Your task to perform on an android device: Open maps Image 0: 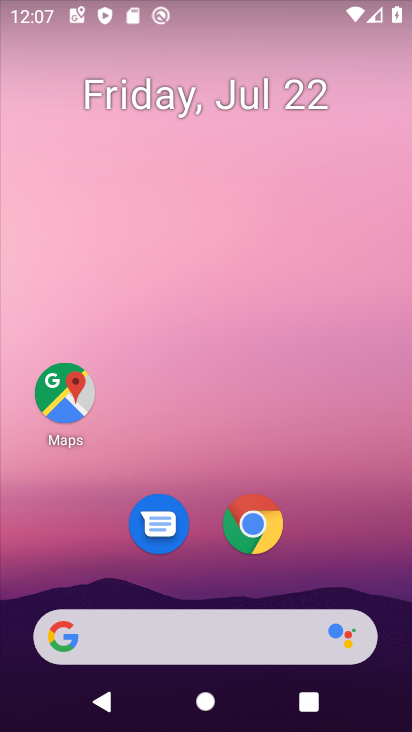
Step 0: click (51, 392)
Your task to perform on an android device: Open maps Image 1: 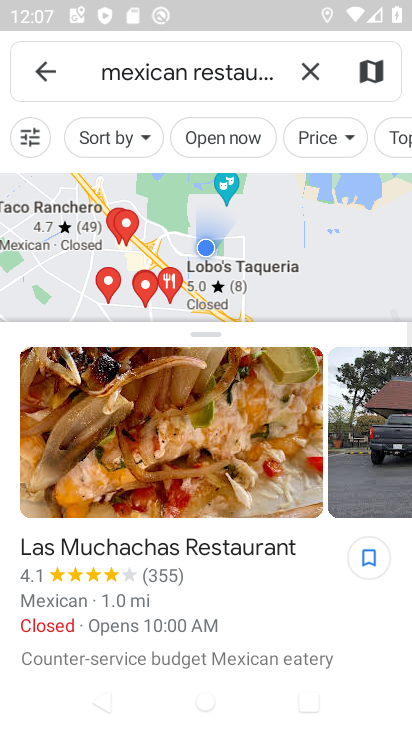
Step 1: click (308, 64)
Your task to perform on an android device: Open maps Image 2: 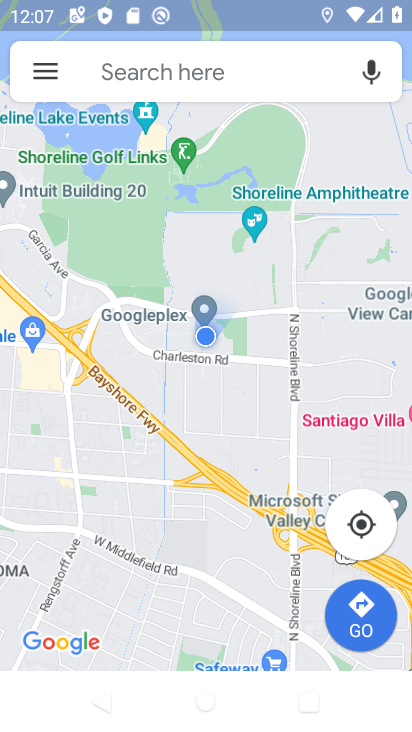
Step 2: task complete